Your task to perform on an android device: Search for Italian restaurants on Maps Image 0: 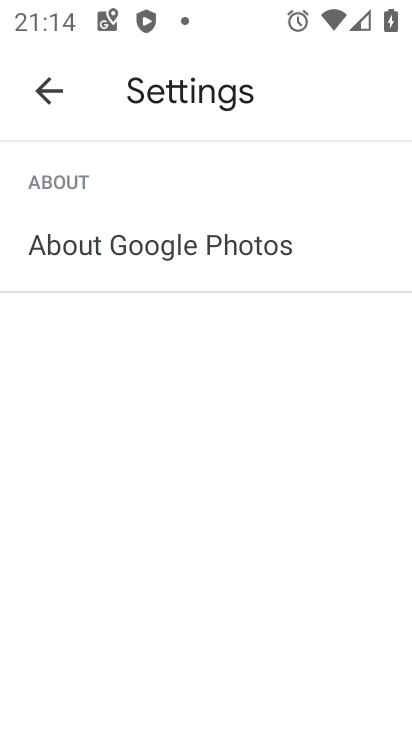
Step 0: press home button
Your task to perform on an android device: Search for Italian restaurants on Maps Image 1: 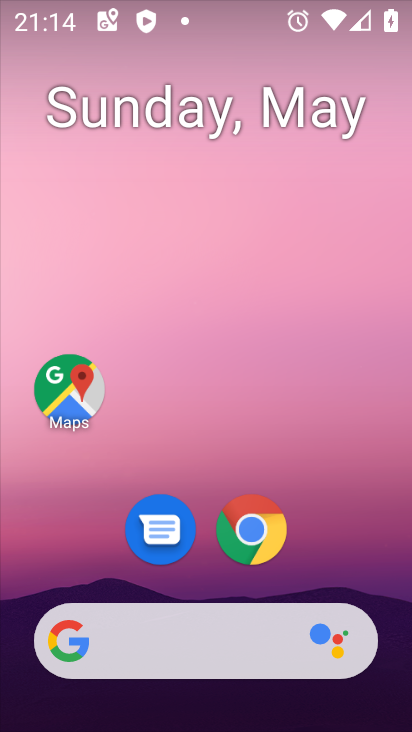
Step 1: click (73, 389)
Your task to perform on an android device: Search for Italian restaurants on Maps Image 2: 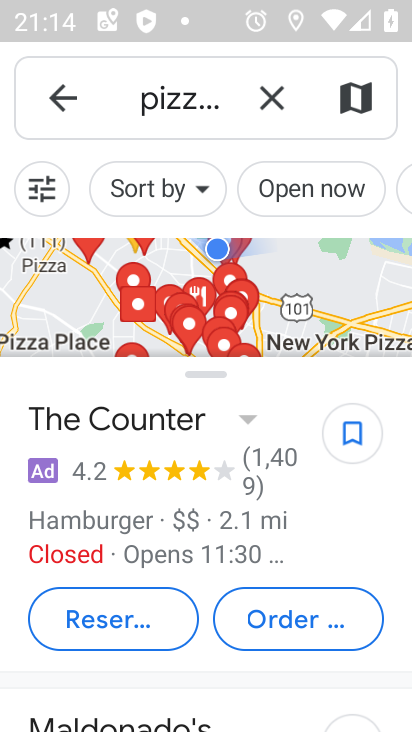
Step 2: click (284, 96)
Your task to perform on an android device: Search for Italian restaurants on Maps Image 3: 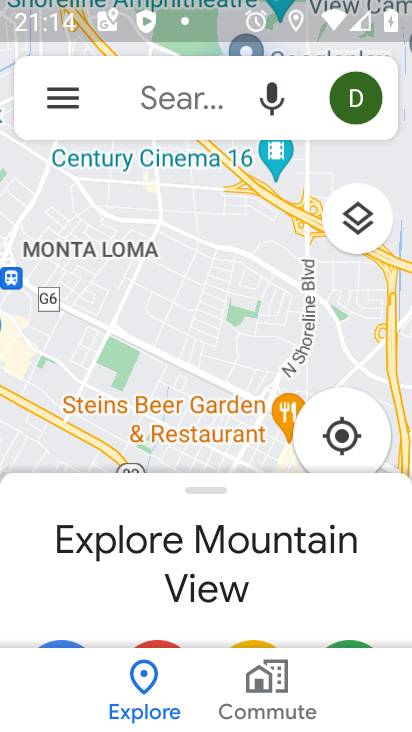
Step 3: click (147, 102)
Your task to perform on an android device: Search for Italian restaurants on Maps Image 4: 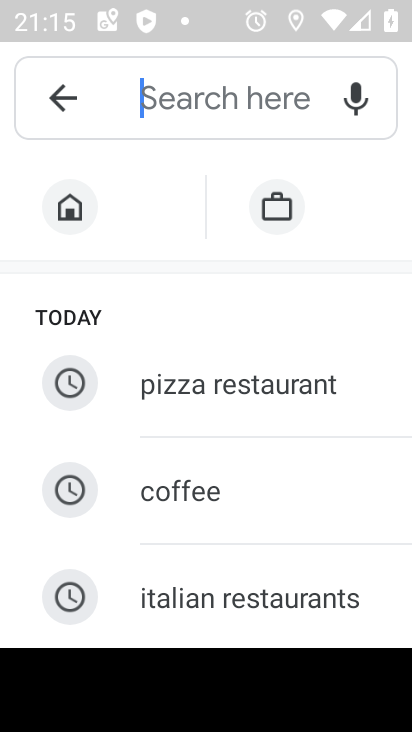
Step 4: type "italian restaurant"
Your task to perform on an android device: Search for Italian restaurants on Maps Image 5: 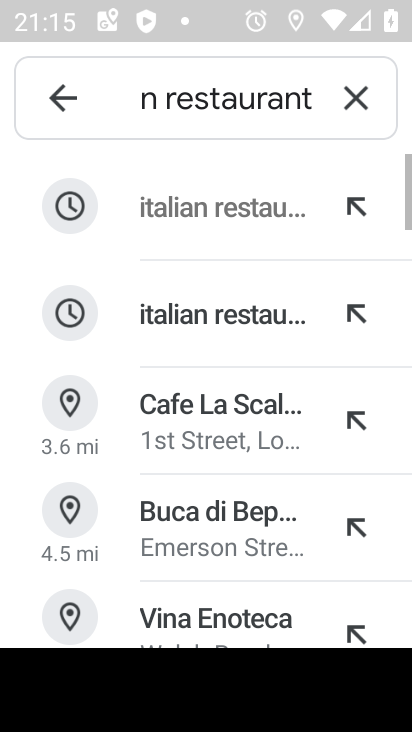
Step 5: click (168, 204)
Your task to perform on an android device: Search for Italian restaurants on Maps Image 6: 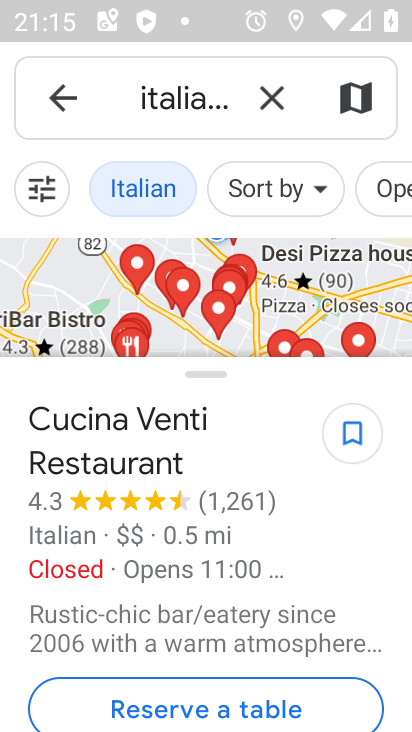
Step 6: task complete